Your task to perform on an android device: What is the speed of a rocket? Image 0: 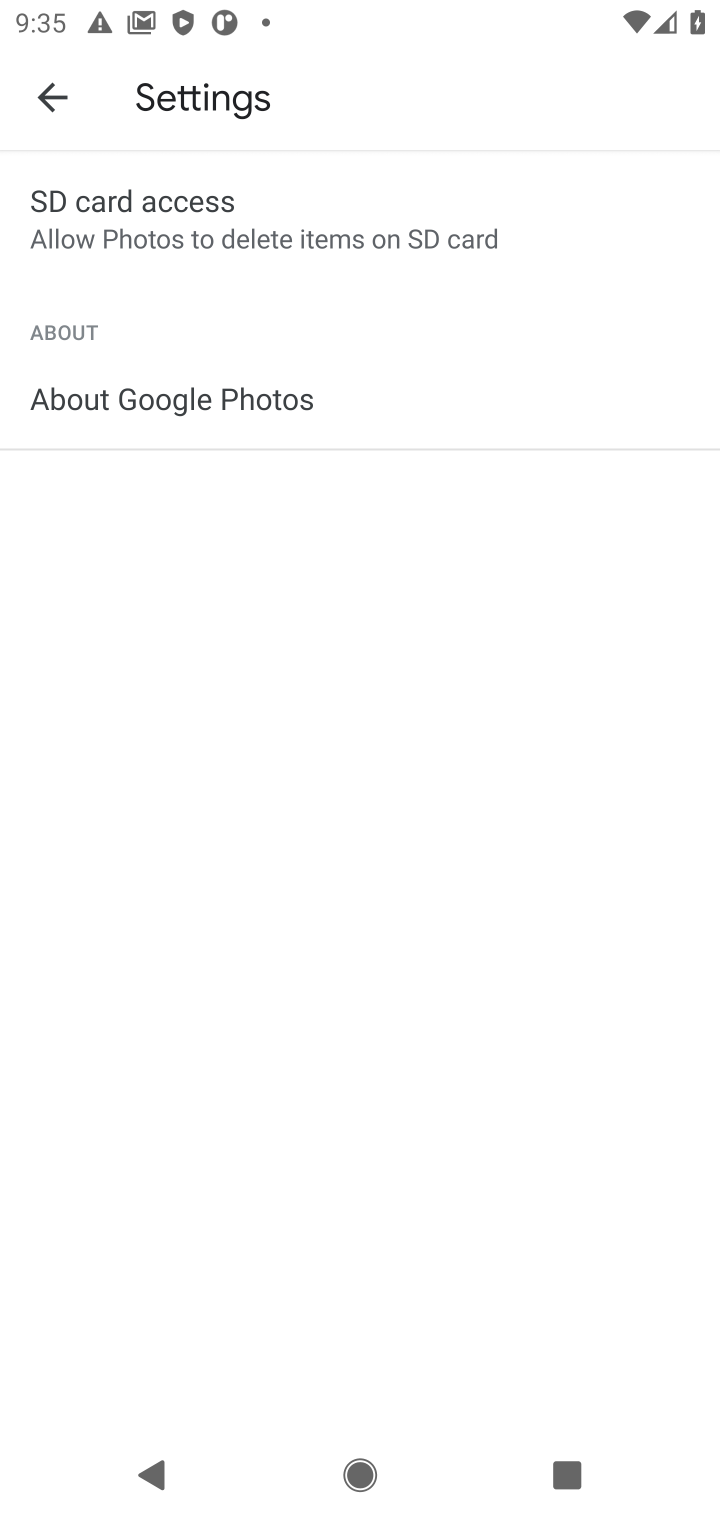
Step 0: drag from (287, 1282) to (287, 343)
Your task to perform on an android device: What is the speed of a rocket? Image 1: 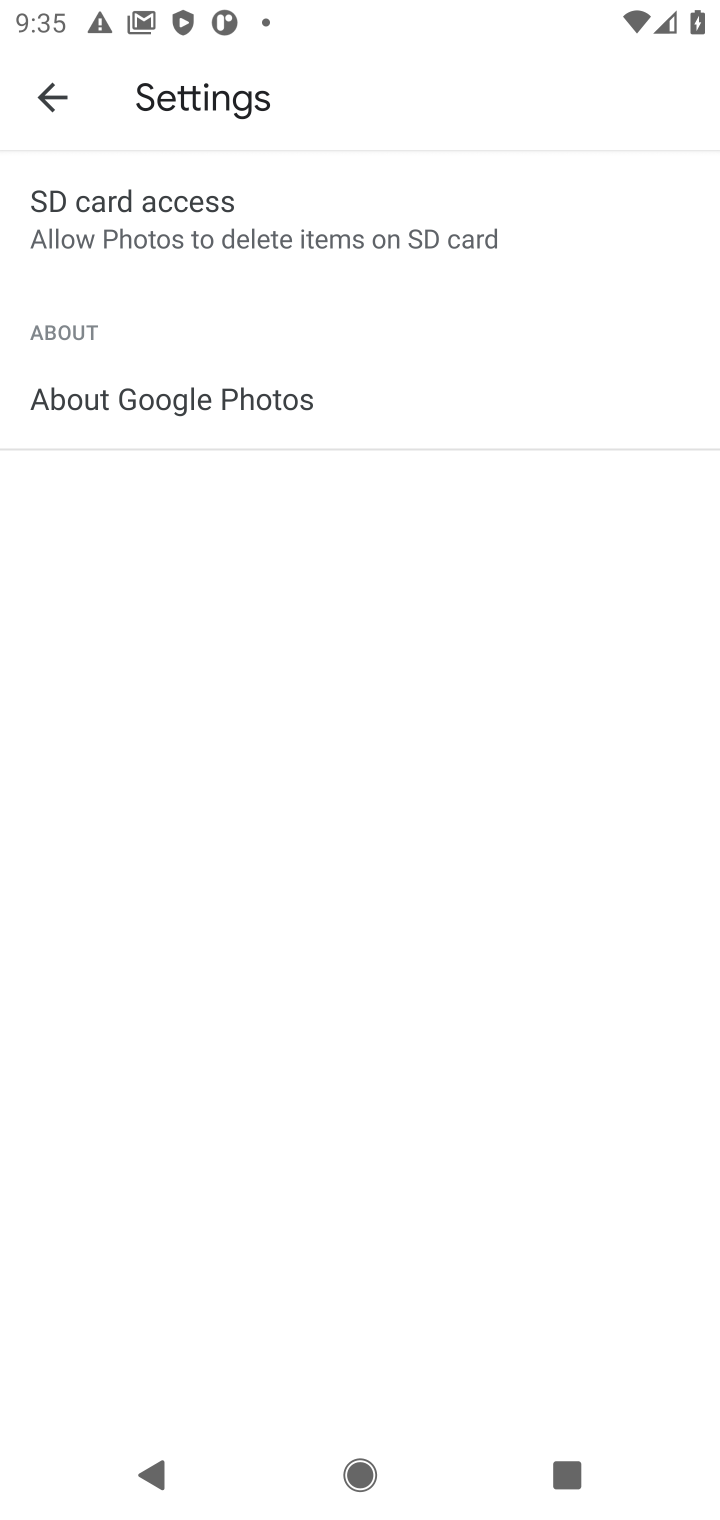
Step 1: press home button
Your task to perform on an android device: What is the speed of a rocket? Image 2: 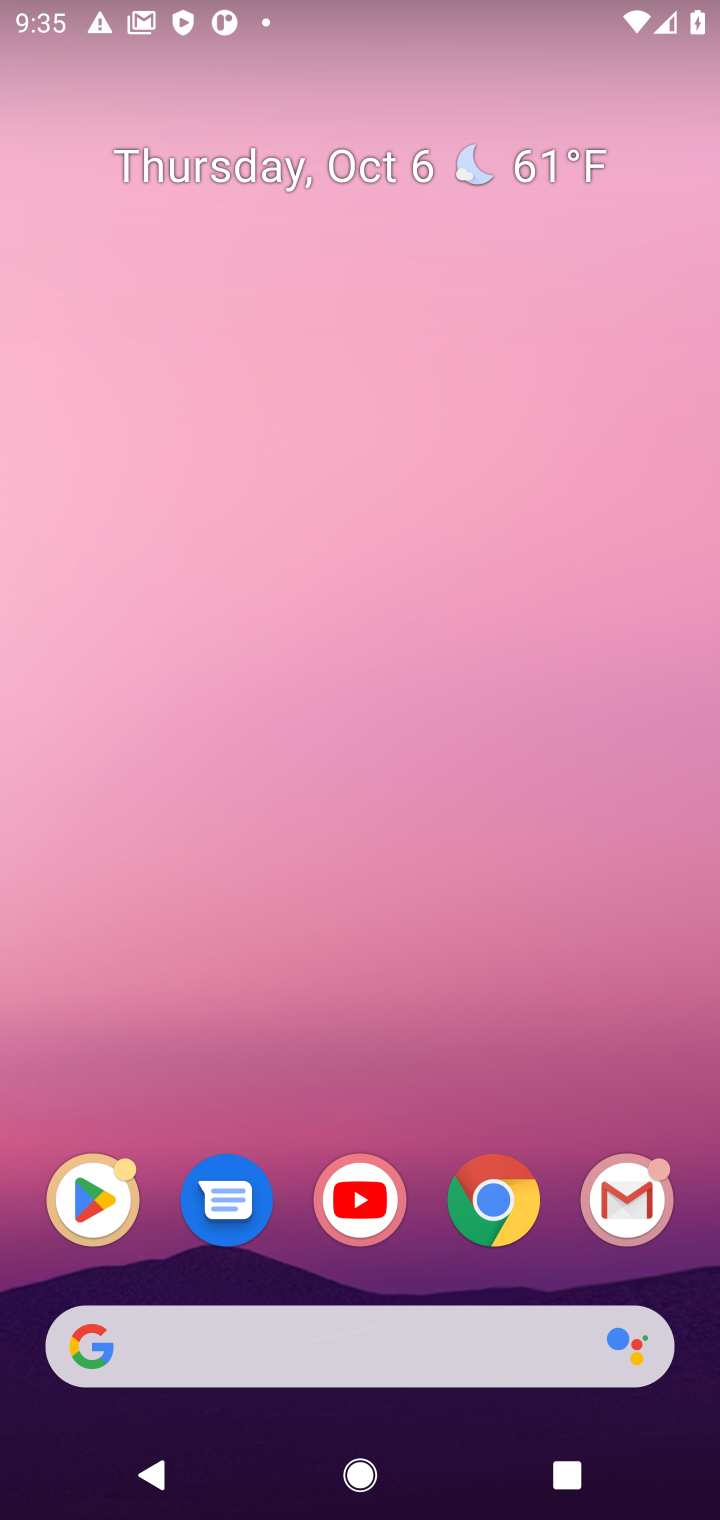
Step 2: drag from (278, 1317) to (452, 249)
Your task to perform on an android device: What is the speed of a rocket? Image 3: 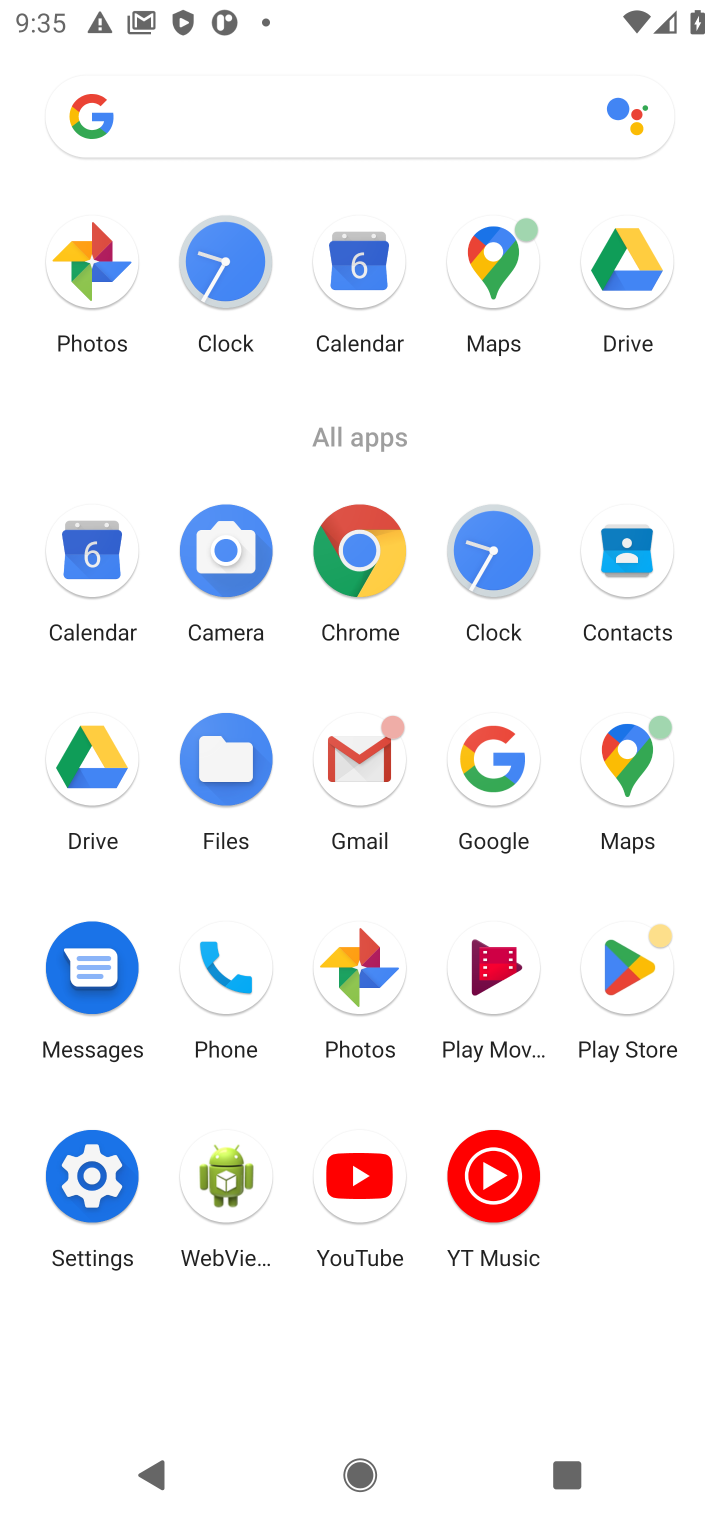
Step 3: click (505, 754)
Your task to perform on an android device: What is the speed of a rocket? Image 4: 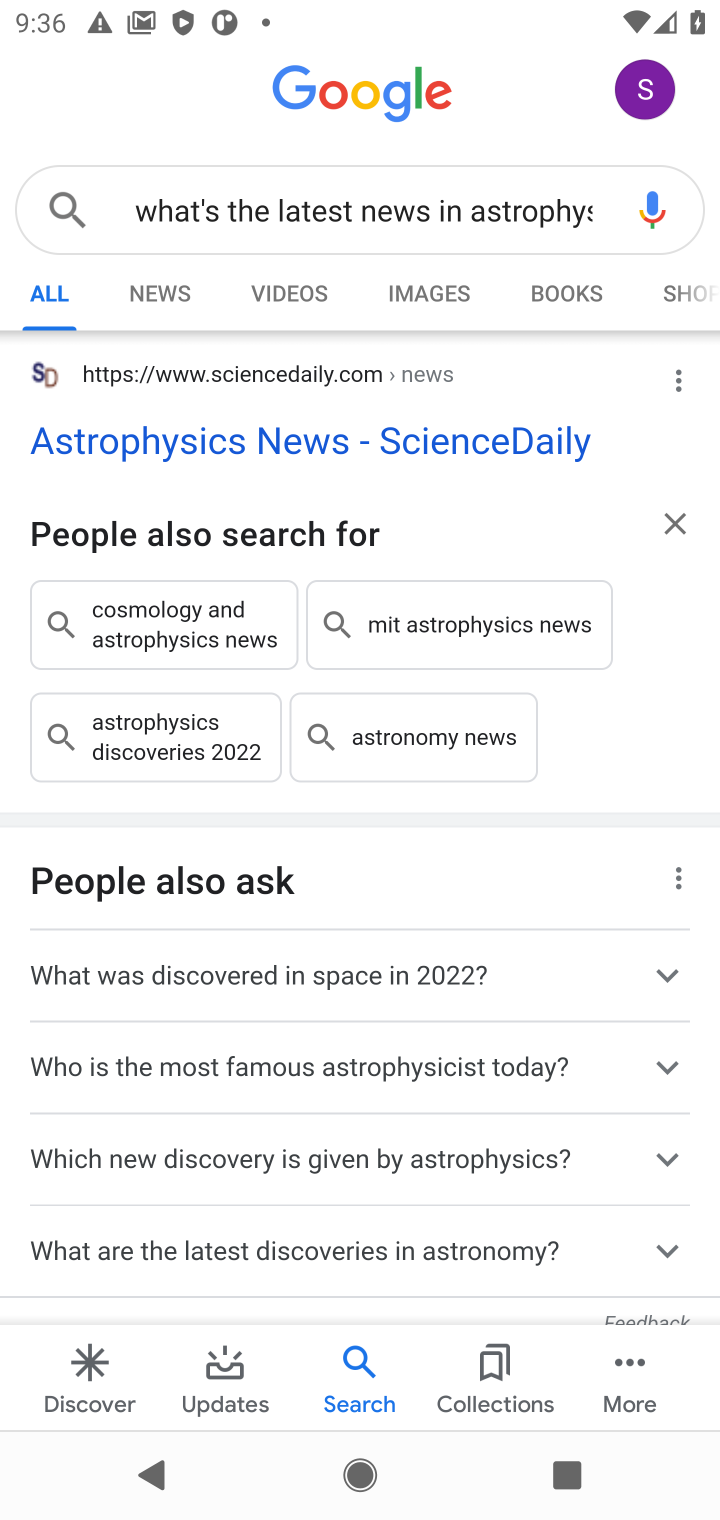
Step 4: click (433, 213)
Your task to perform on an android device: What is the speed of a rocket? Image 5: 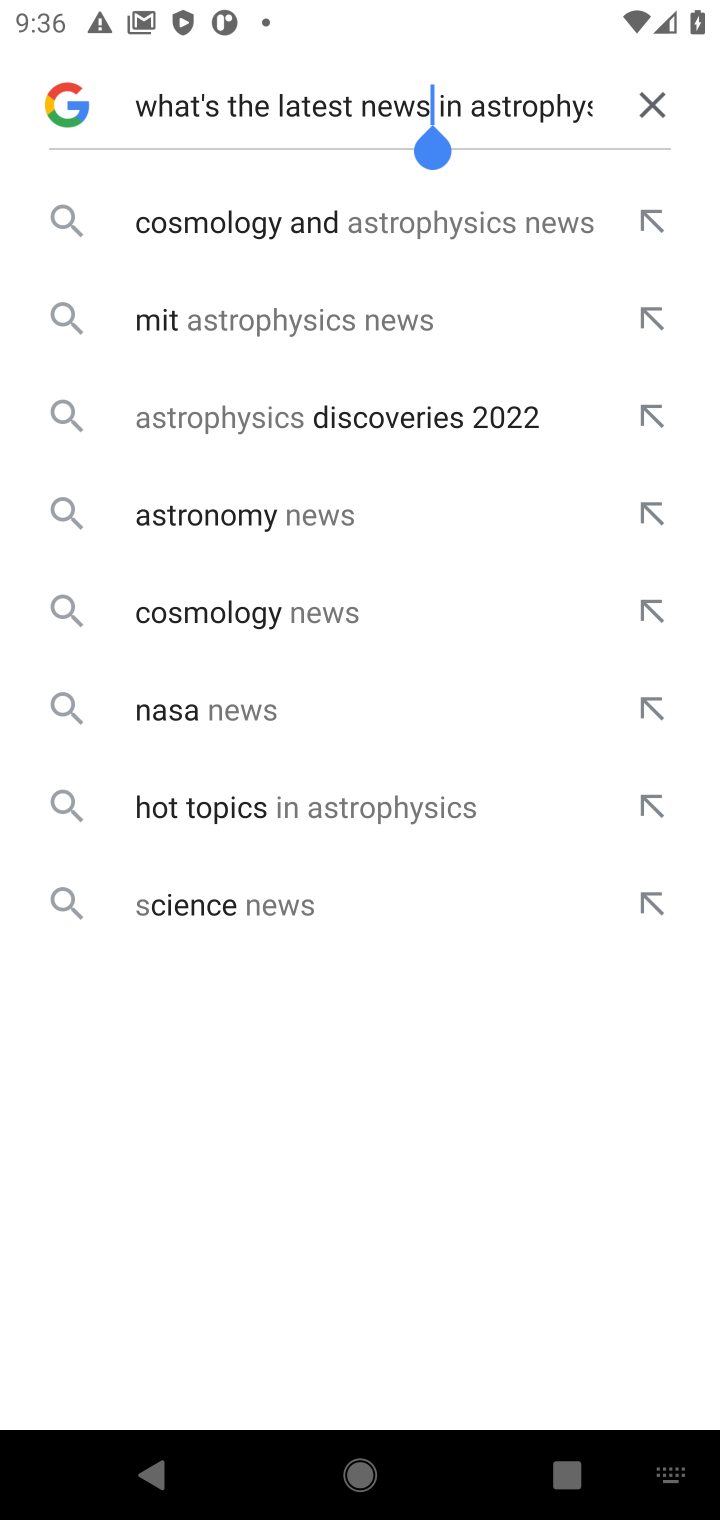
Step 5: click (637, 96)
Your task to perform on an android device: What is the speed of a rocket? Image 6: 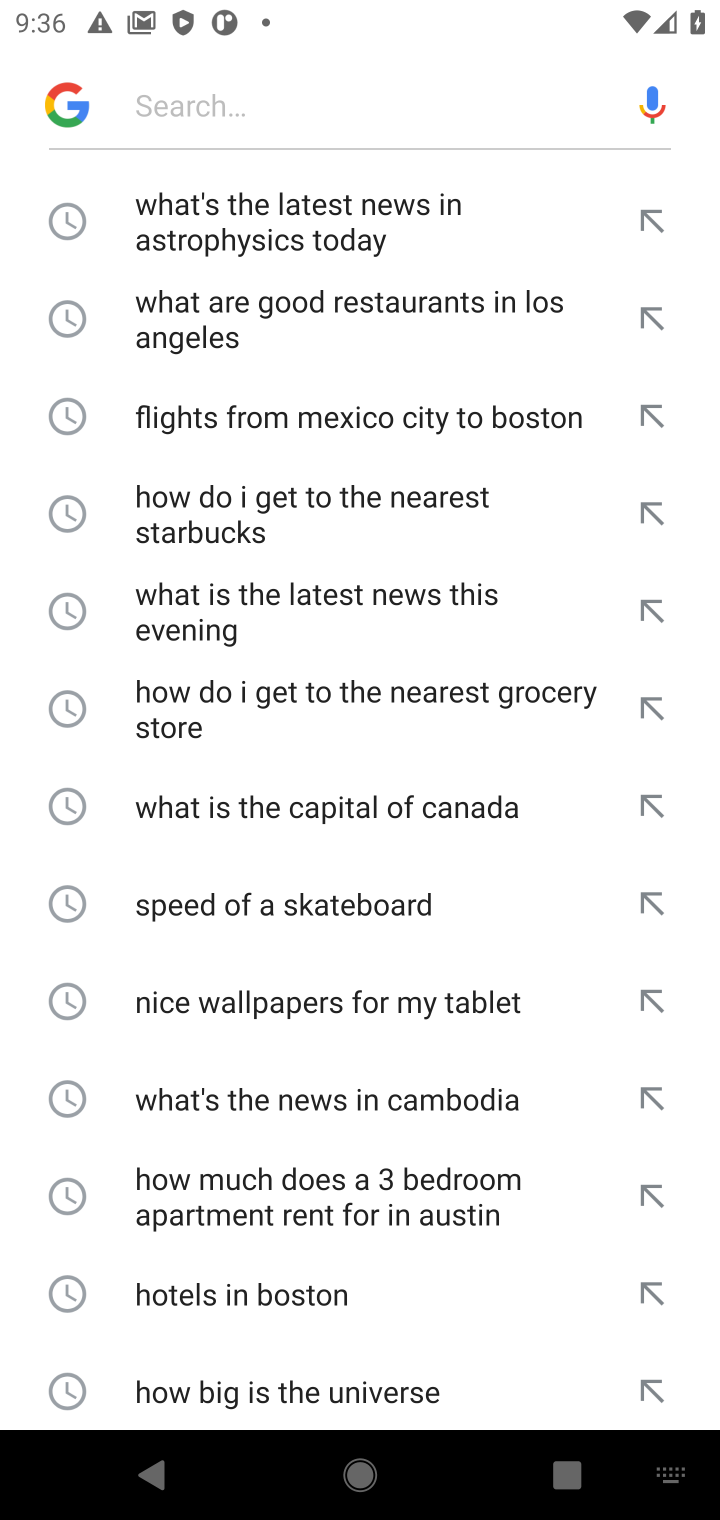
Step 6: type "What is the speed of a rocket?"
Your task to perform on an android device: What is the speed of a rocket? Image 7: 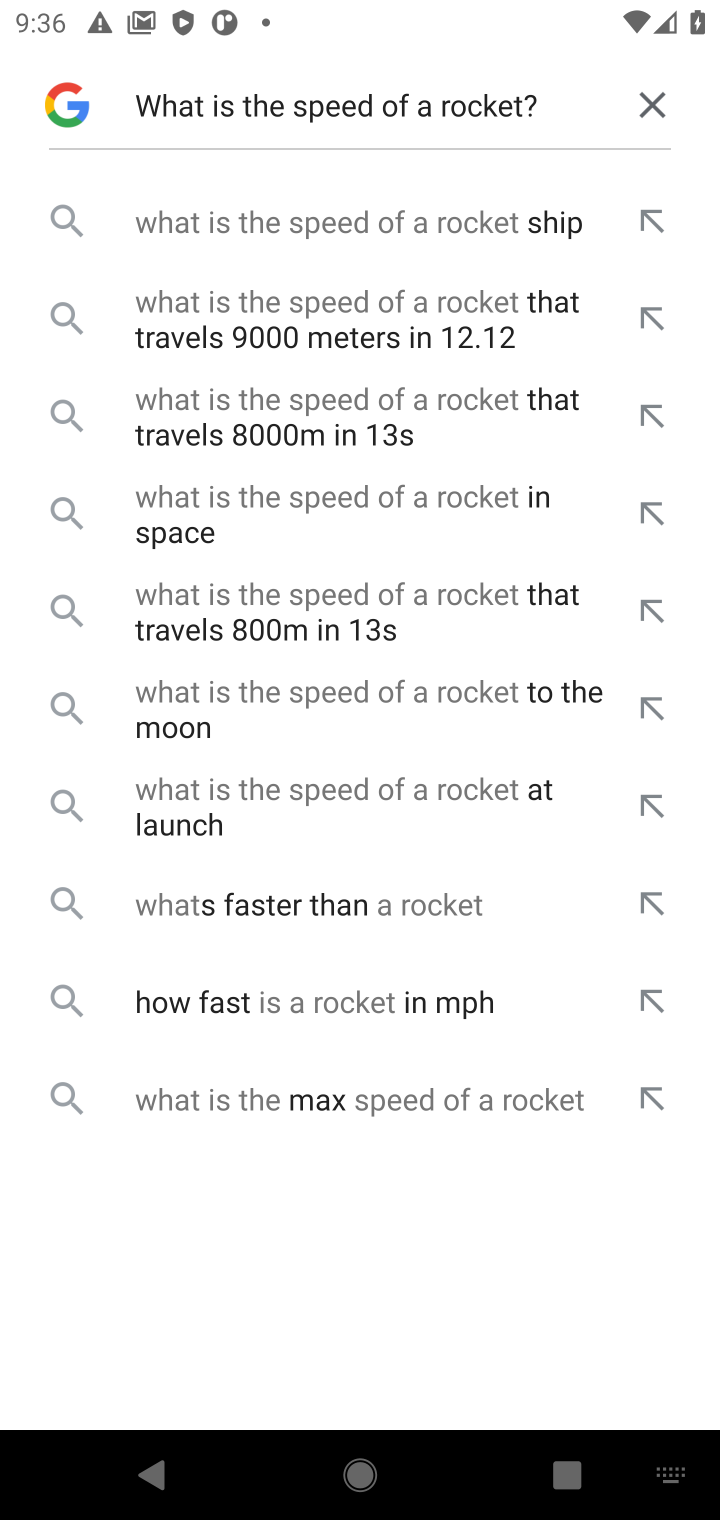
Step 7: click (226, 236)
Your task to perform on an android device: What is the speed of a rocket? Image 8: 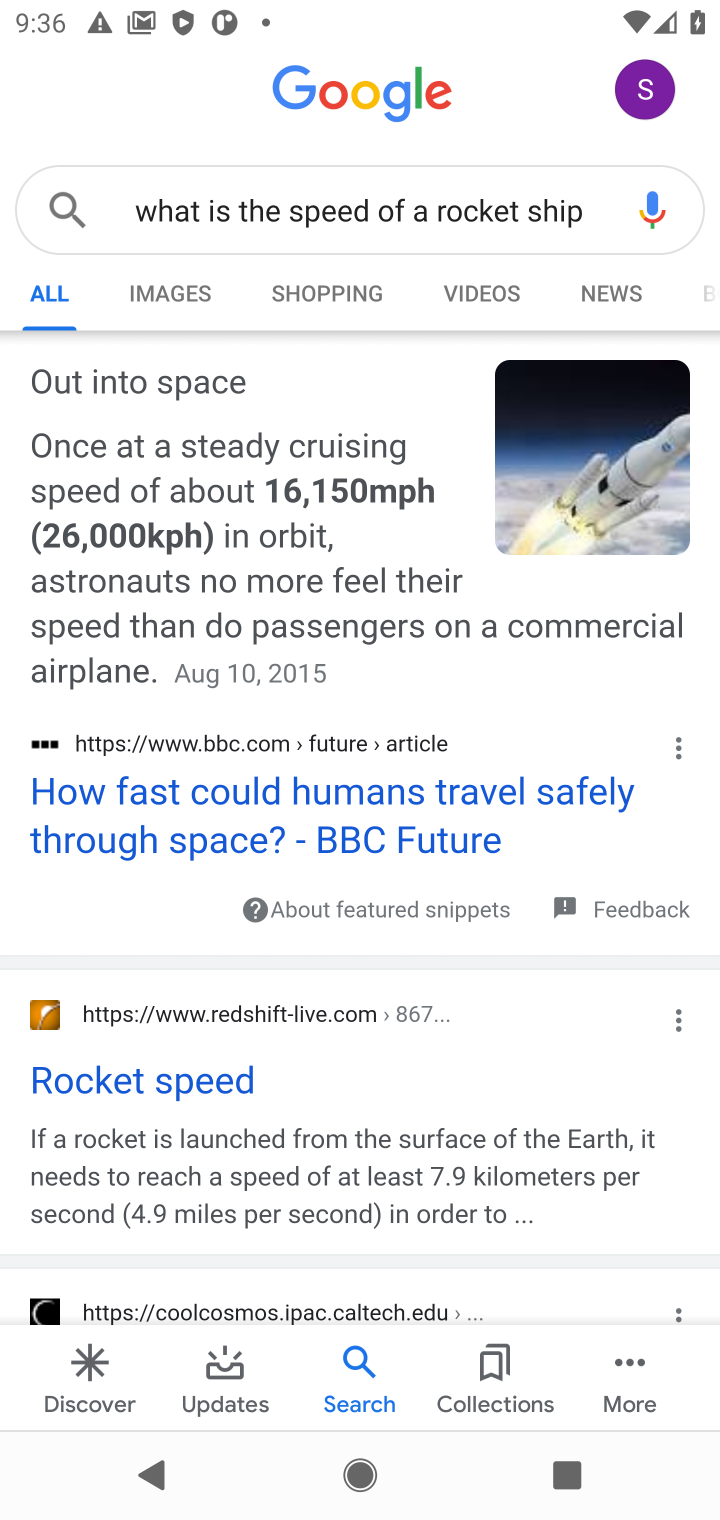
Step 8: task complete